Your task to perform on an android device: Open Google Image 0: 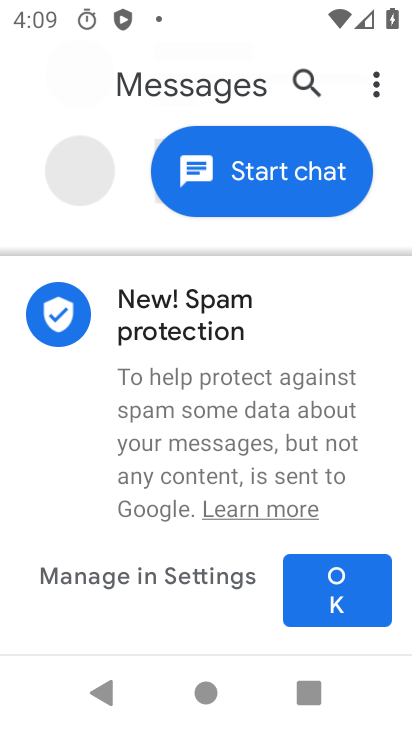
Step 0: press home button
Your task to perform on an android device: Open Google Image 1: 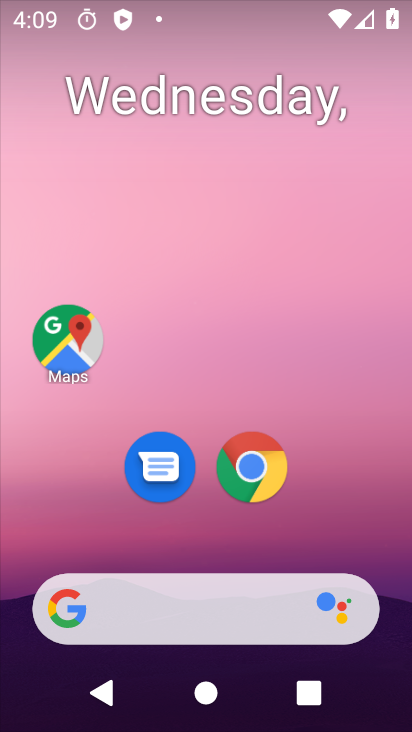
Step 1: drag from (223, 471) to (225, 8)
Your task to perform on an android device: Open Google Image 2: 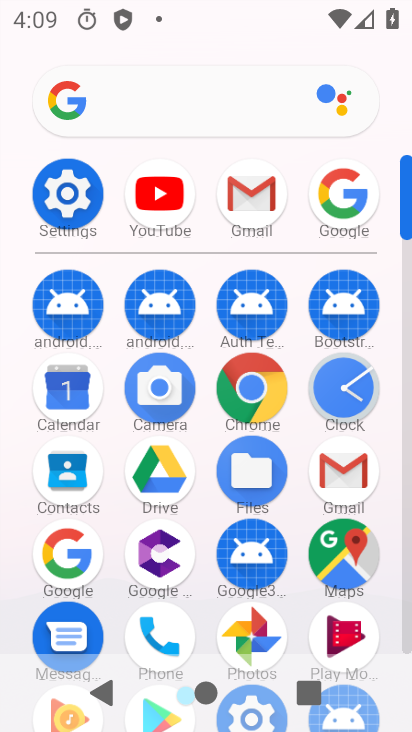
Step 2: click (45, 550)
Your task to perform on an android device: Open Google Image 3: 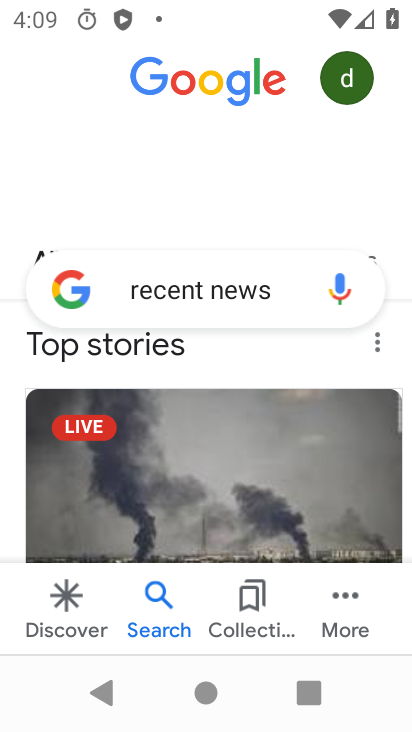
Step 3: task complete